Your task to perform on an android device: turn off location Image 0: 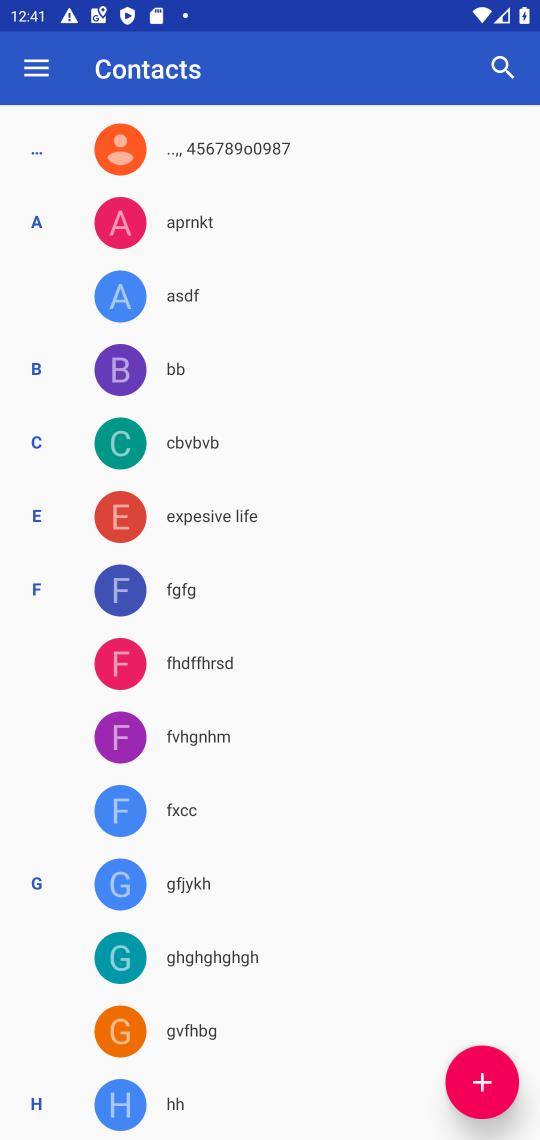
Step 0: press home button
Your task to perform on an android device: turn off location Image 1: 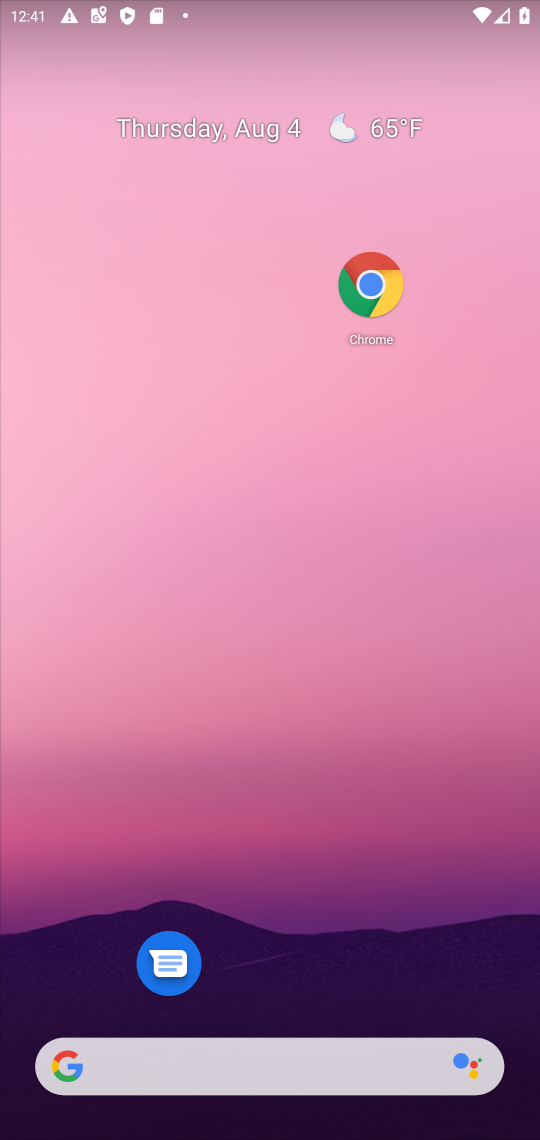
Step 1: drag from (268, 981) to (357, 253)
Your task to perform on an android device: turn off location Image 2: 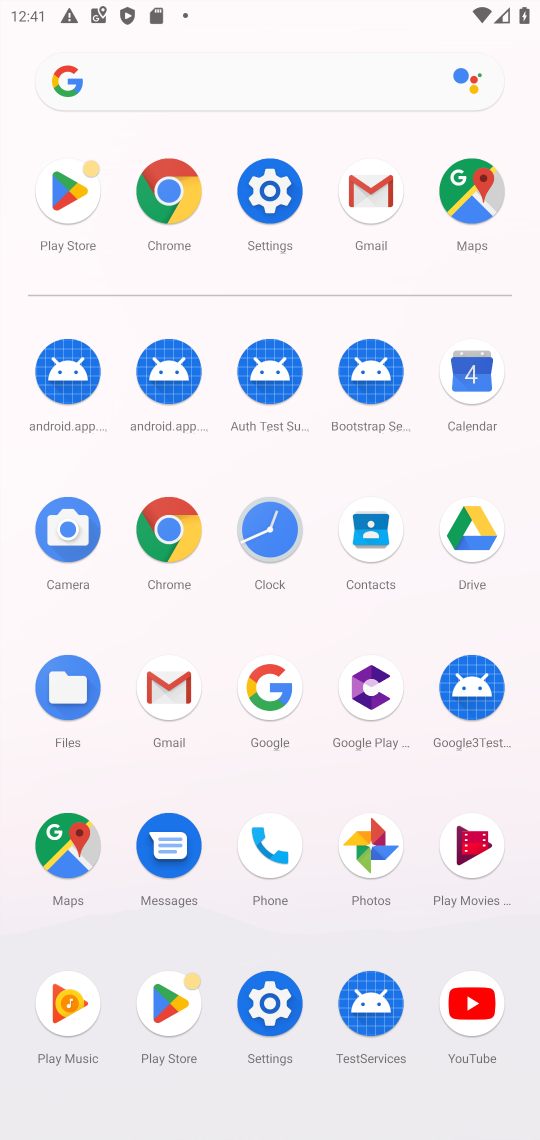
Step 2: click (266, 175)
Your task to perform on an android device: turn off location Image 3: 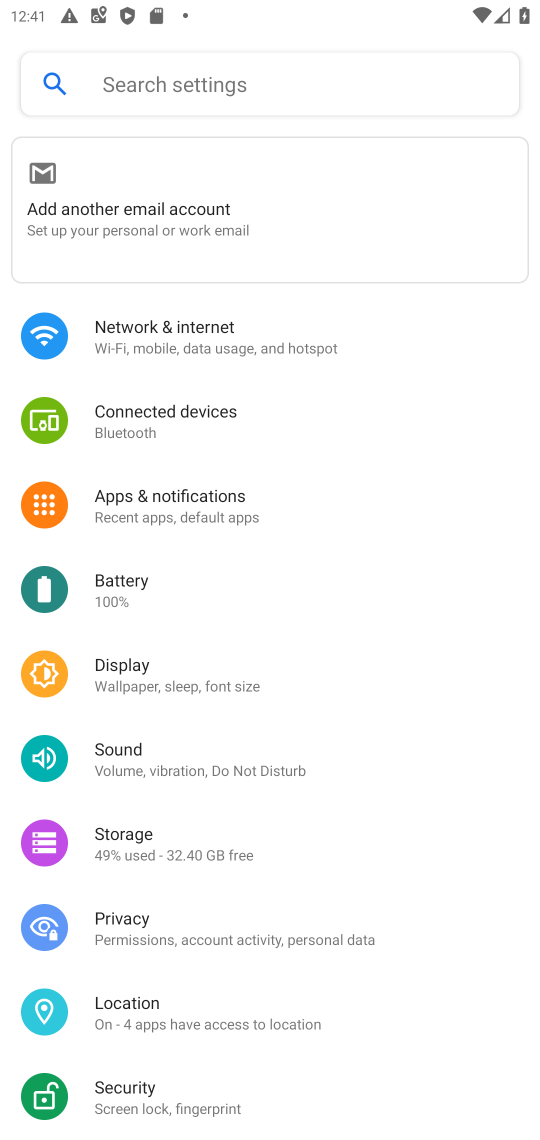
Step 3: click (176, 1012)
Your task to perform on an android device: turn off location Image 4: 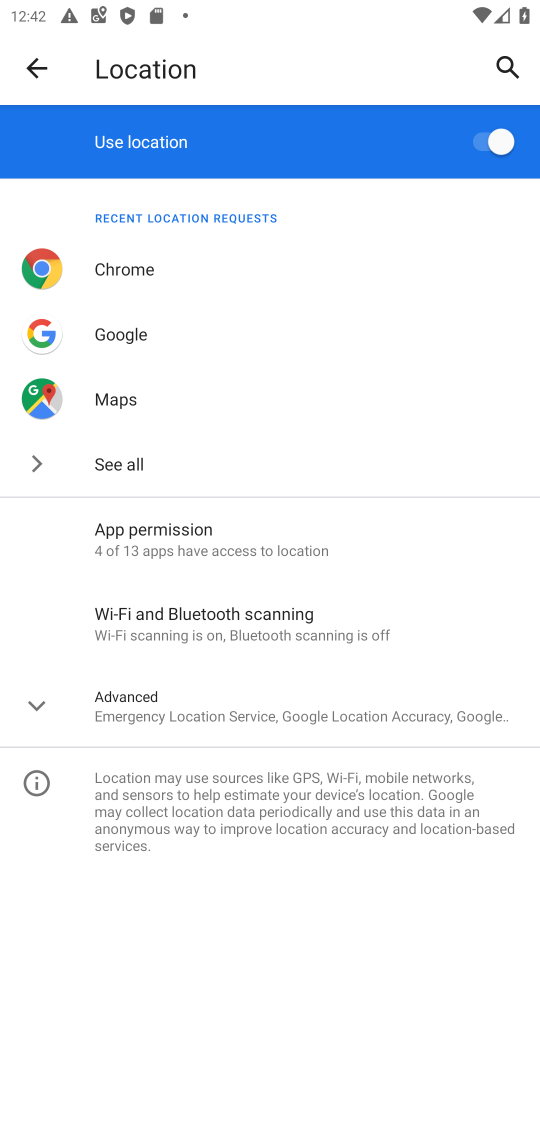
Step 4: click (474, 141)
Your task to perform on an android device: turn off location Image 5: 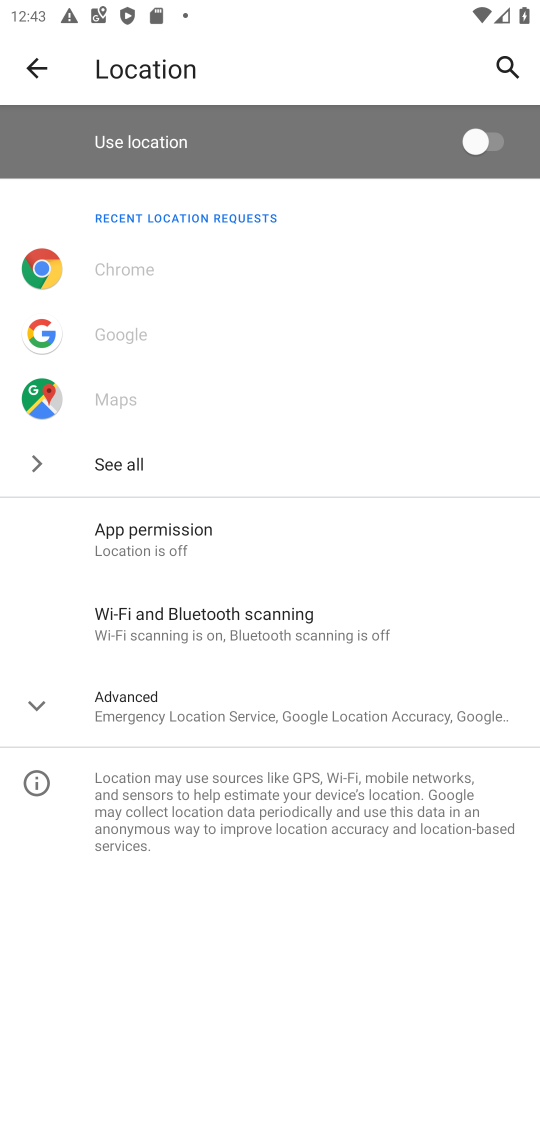
Step 5: task complete